Your task to perform on an android device: Do I have any events tomorrow? Image 0: 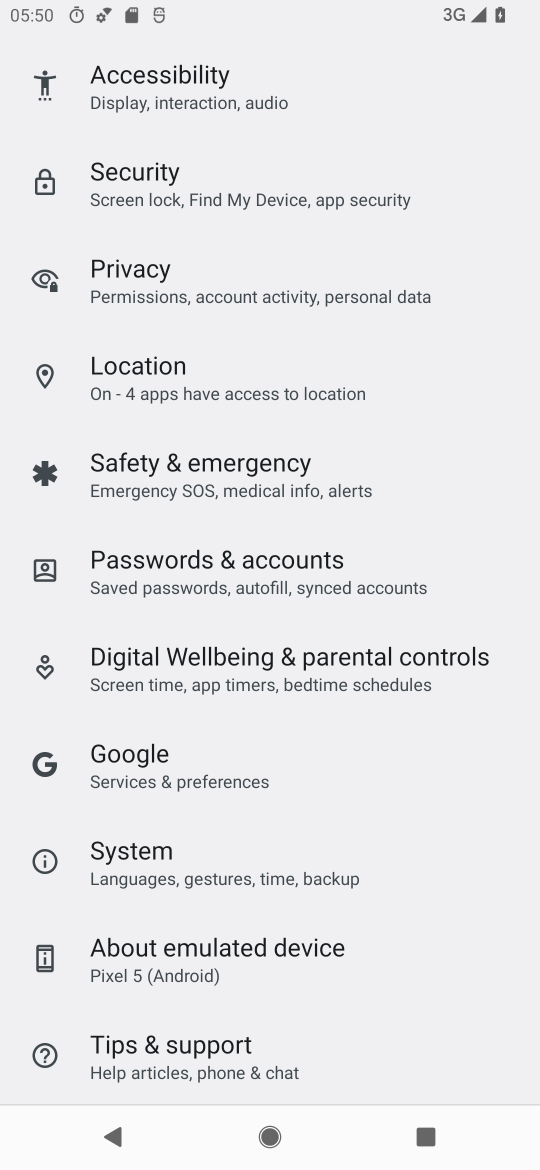
Step 0: press home button
Your task to perform on an android device: Do I have any events tomorrow? Image 1: 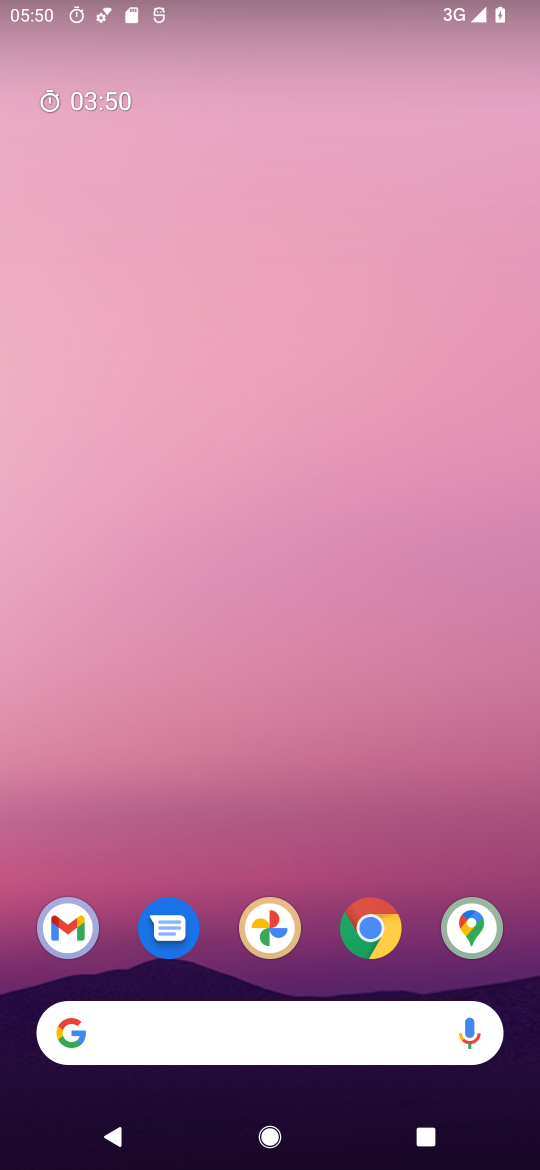
Step 1: drag from (226, 969) to (270, 115)
Your task to perform on an android device: Do I have any events tomorrow? Image 2: 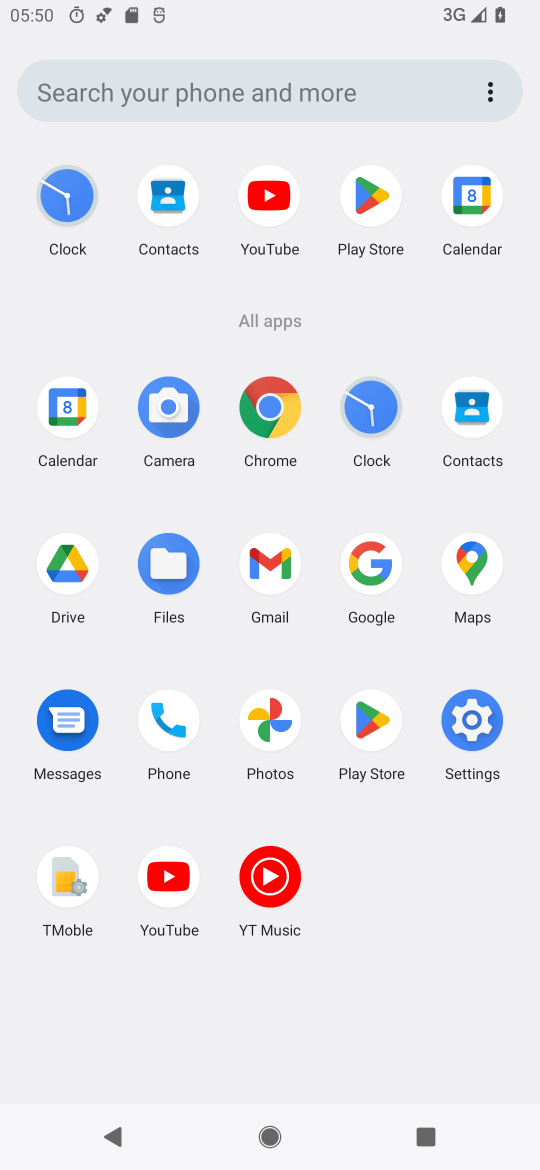
Step 2: click (57, 428)
Your task to perform on an android device: Do I have any events tomorrow? Image 3: 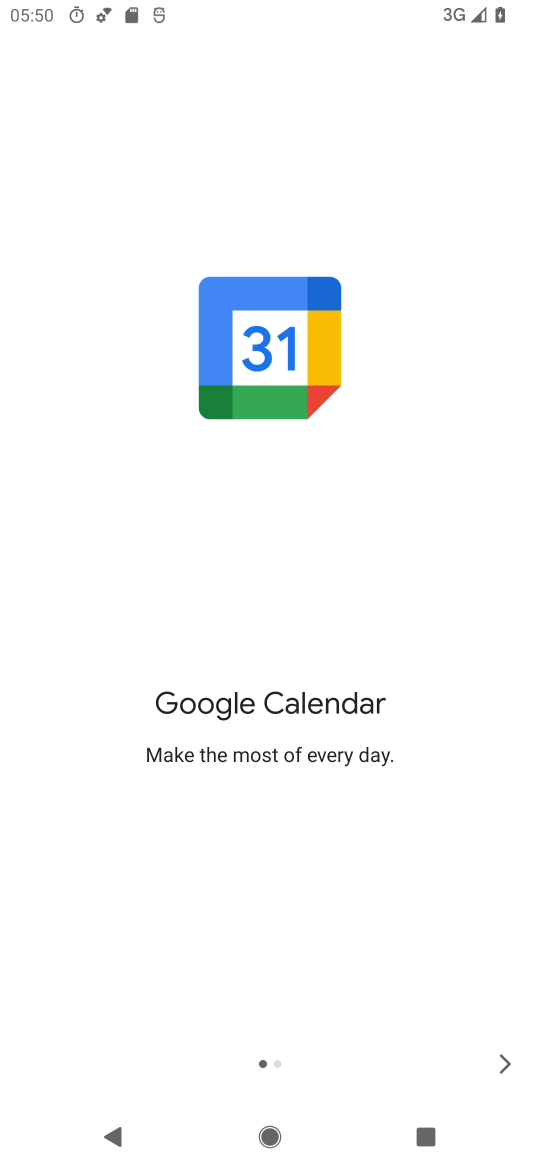
Step 3: click (493, 1063)
Your task to perform on an android device: Do I have any events tomorrow? Image 4: 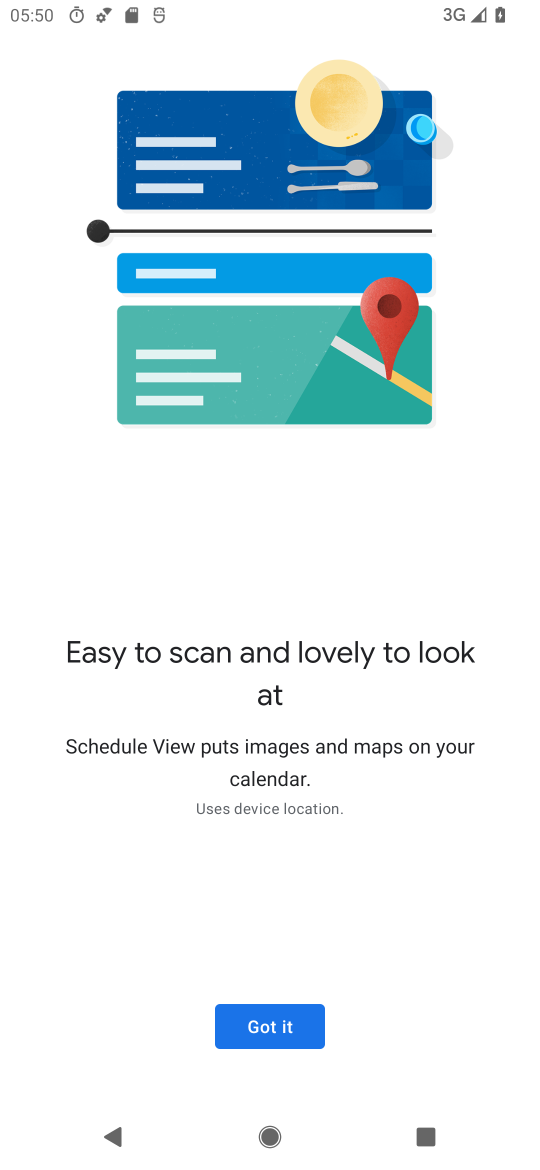
Step 4: click (297, 1023)
Your task to perform on an android device: Do I have any events tomorrow? Image 5: 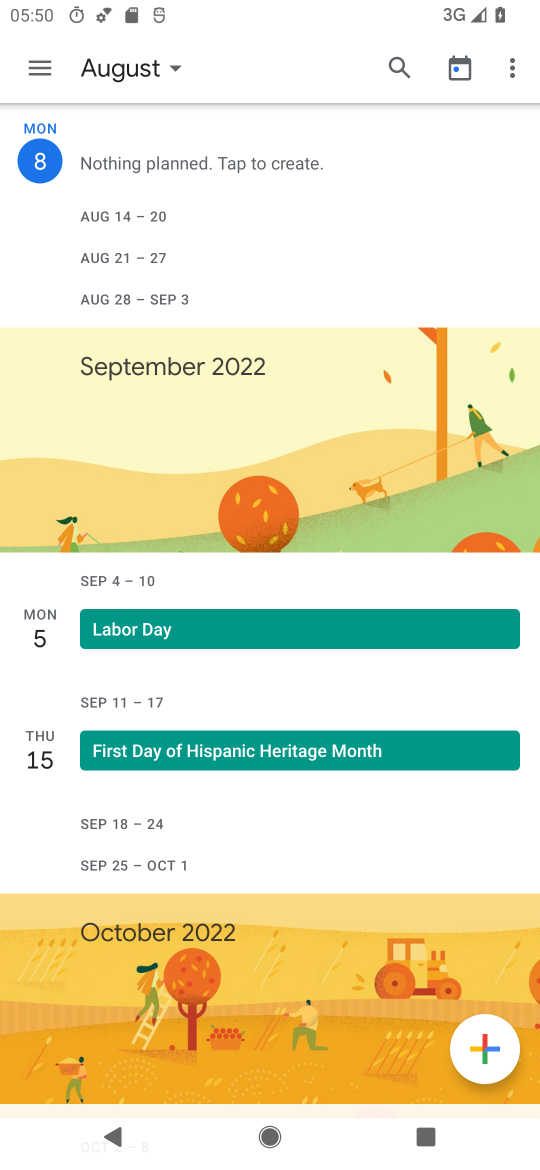
Step 5: click (36, 62)
Your task to perform on an android device: Do I have any events tomorrow? Image 6: 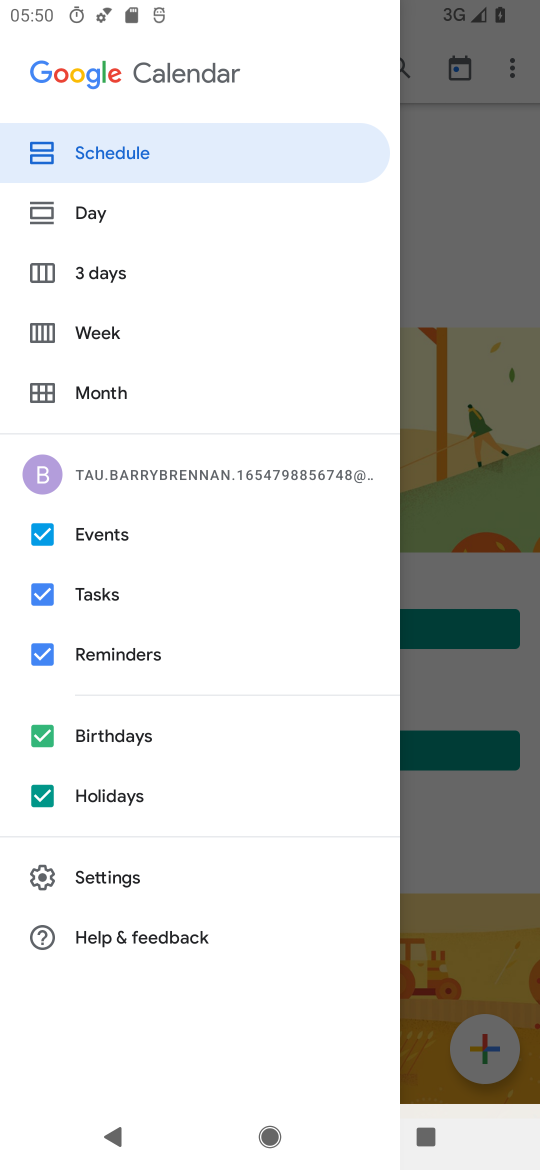
Step 6: click (108, 595)
Your task to perform on an android device: Do I have any events tomorrow? Image 7: 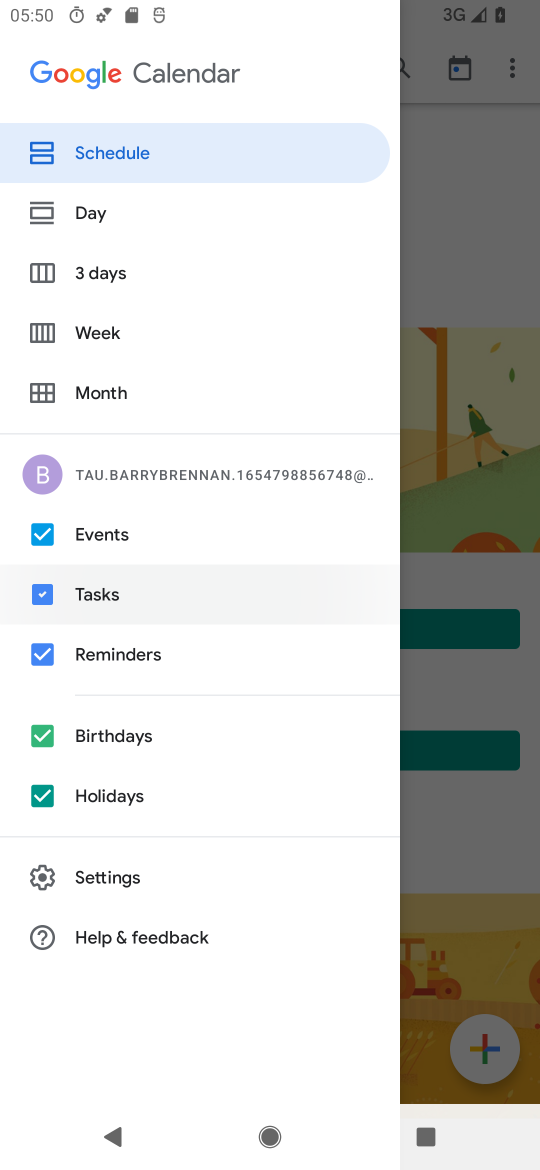
Step 7: click (114, 659)
Your task to perform on an android device: Do I have any events tomorrow? Image 8: 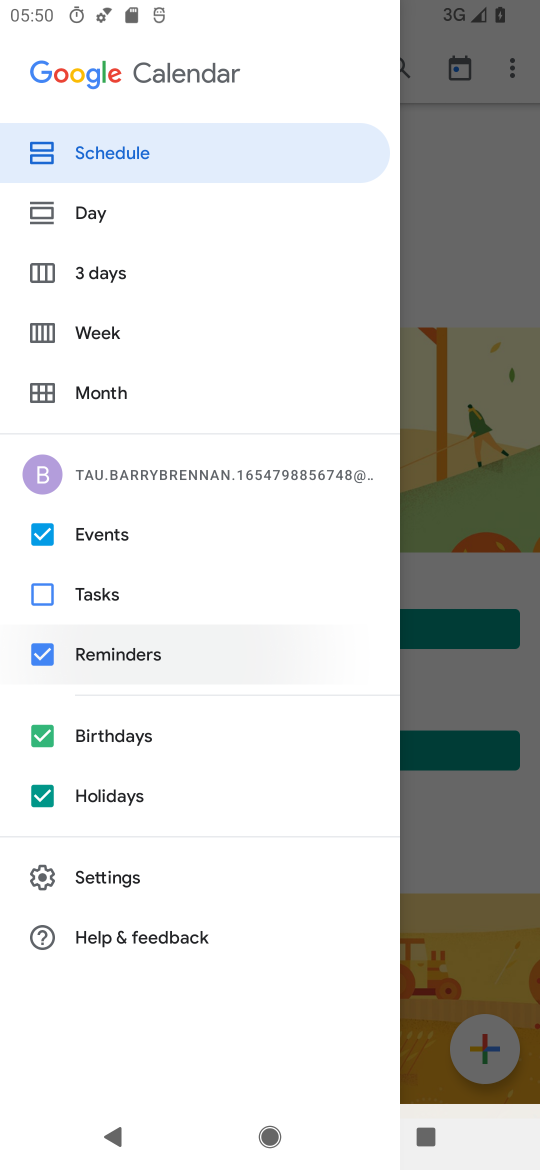
Step 8: click (134, 739)
Your task to perform on an android device: Do I have any events tomorrow? Image 9: 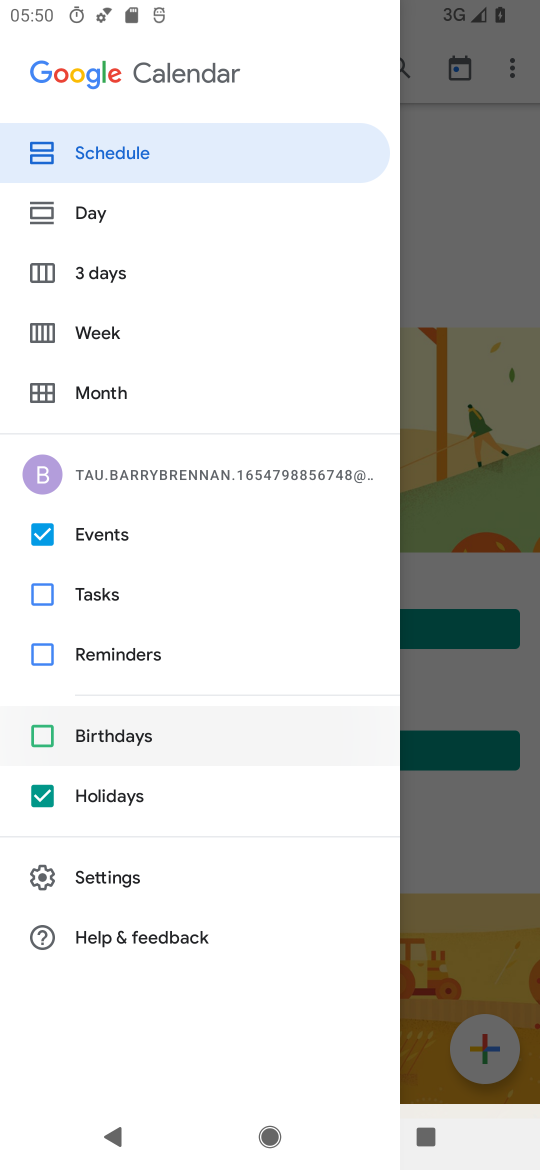
Step 9: click (110, 799)
Your task to perform on an android device: Do I have any events tomorrow? Image 10: 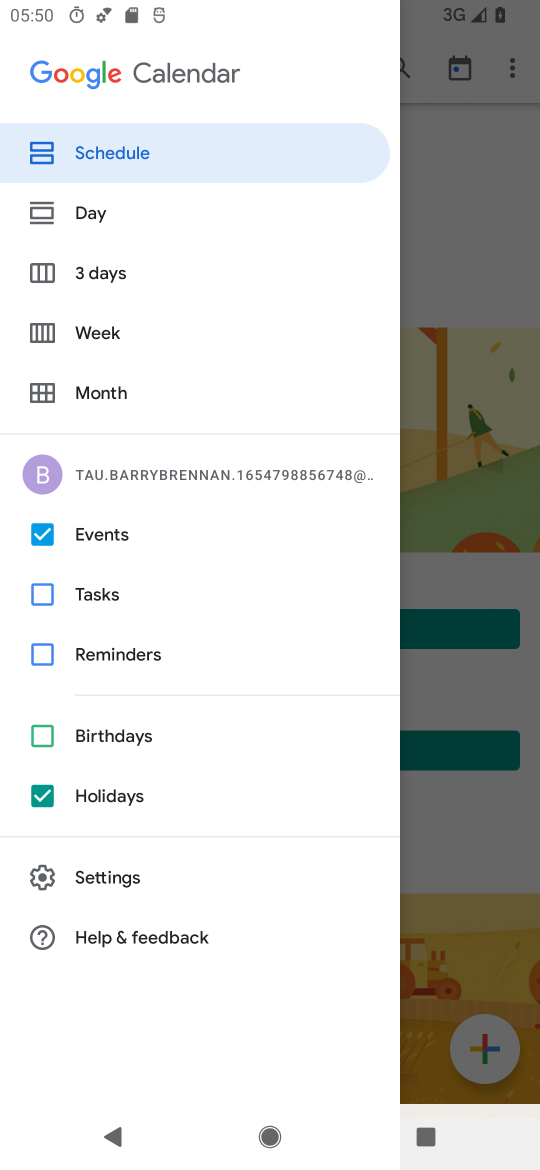
Step 10: click (126, 286)
Your task to perform on an android device: Do I have any events tomorrow? Image 11: 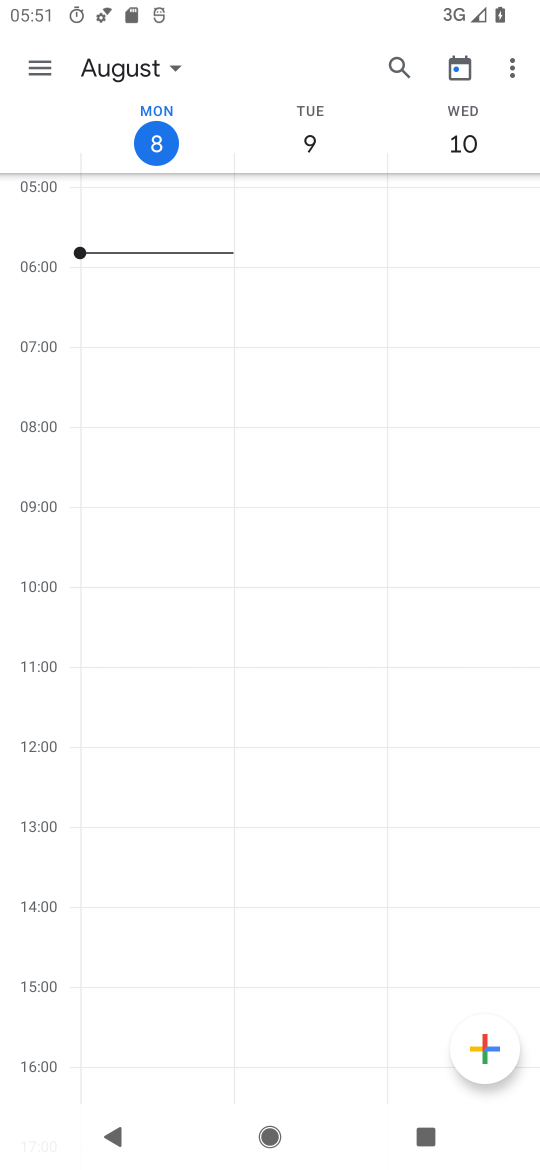
Step 11: task complete